Your task to perform on an android device: When is my next appointment? Image 0: 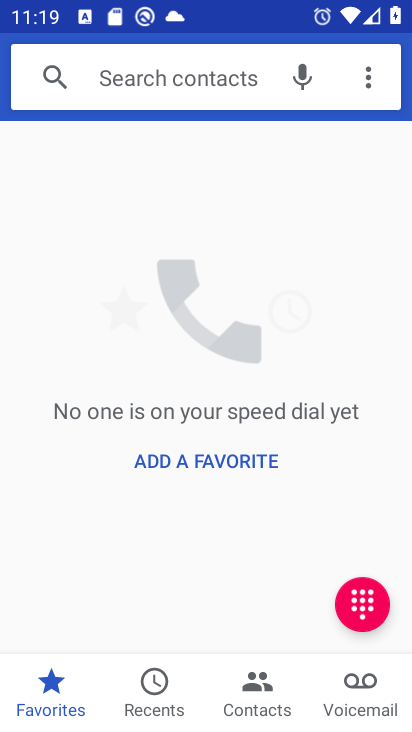
Step 0: press home button
Your task to perform on an android device: When is my next appointment? Image 1: 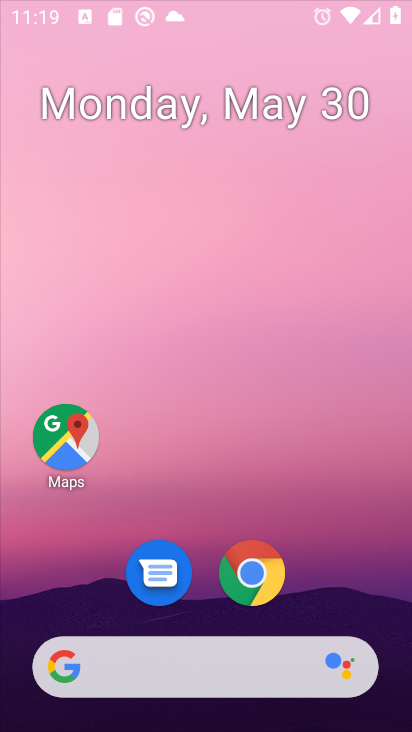
Step 1: drag from (183, 646) to (173, 120)
Your task to perform on an android device: When is my next appointment? Image 2: 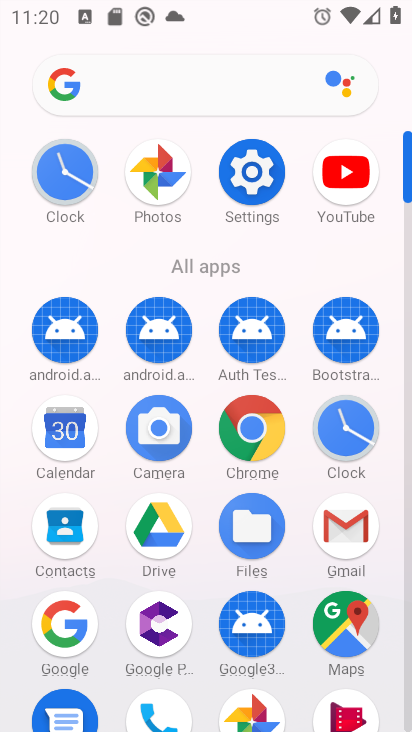
Step 2: drag from (251, 541) to (279, 114)
Your task to perform on an android device: When is my next appointment? Image 3: 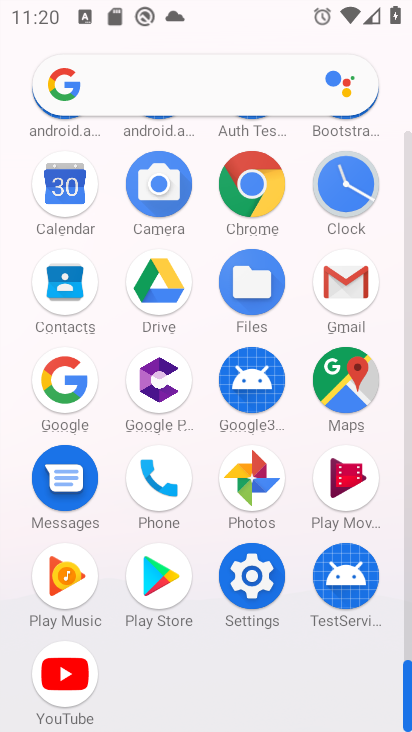
Step 3: click (78, 197)
Your task to perform on an android device: When is my next appointment? Image 4: 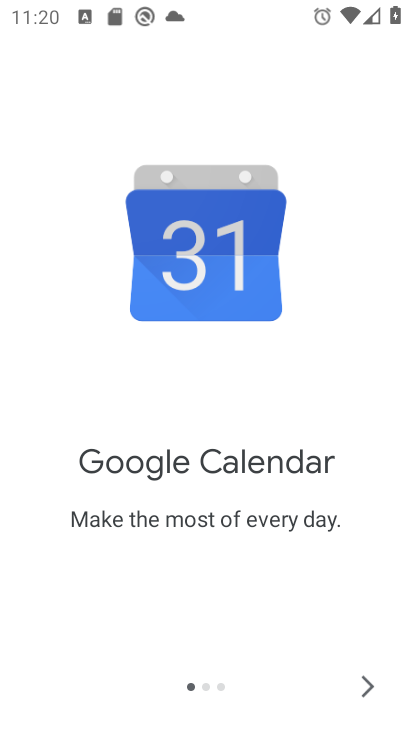
Step 4: click (372, 677)
Your task to perform on an android device: When is my next appointment? Image 5: 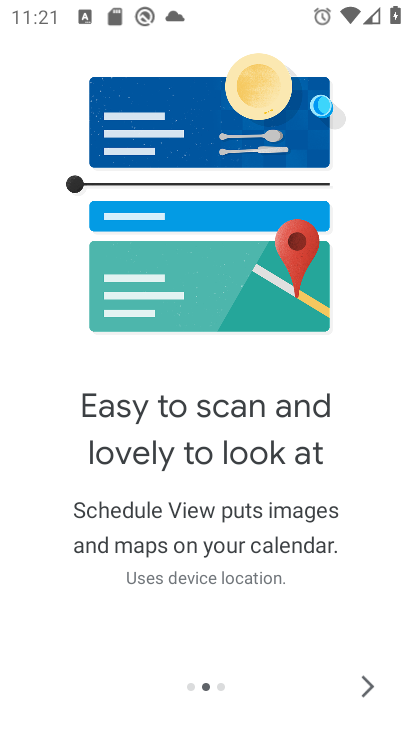
Step 5: click (388, 683)
Your task to perform on an android device: When is my next appointment? Image 6: 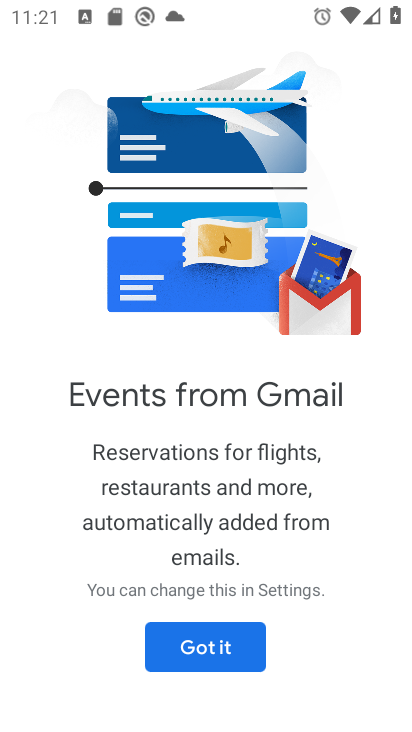
Step 6: click (214, 660)
Your task to perform on an android device: When is my next appointment? Image 7: 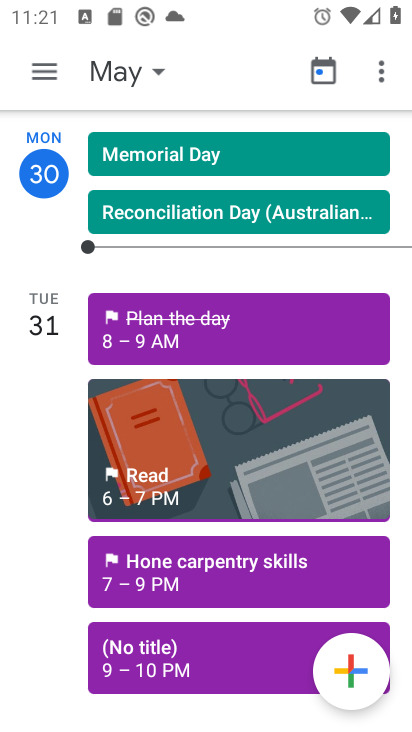
Step 7: press home button
Your task to perform on an android device: When is my next appointment? Image 8: 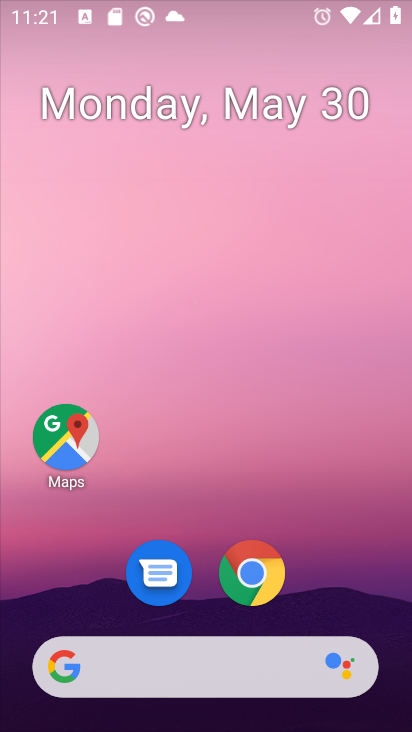
Step 8: drag from (187, 516) to (242, 130)
Your task to perform on an android device: When is my next appointment? Image 9: 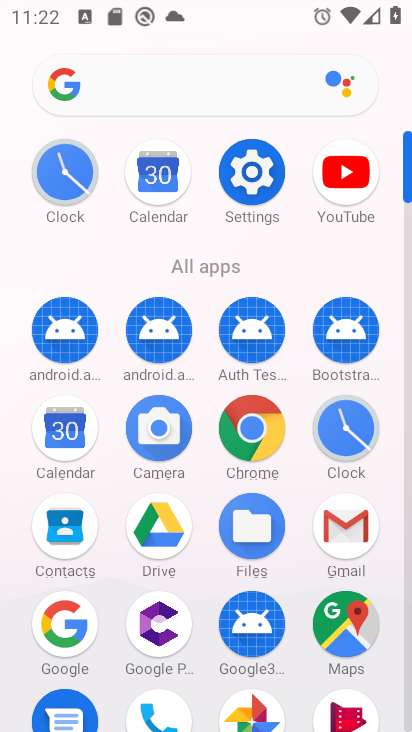
Step 9: click (68, 455)
Your task to perform on an android device: When is my next appointment? Image 10: 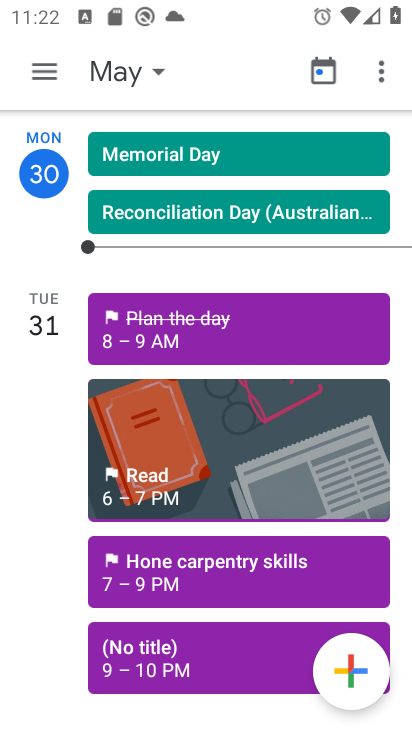
Step 10: task complete